Your task to perform on an android device: toggle sleep mode Image 0: 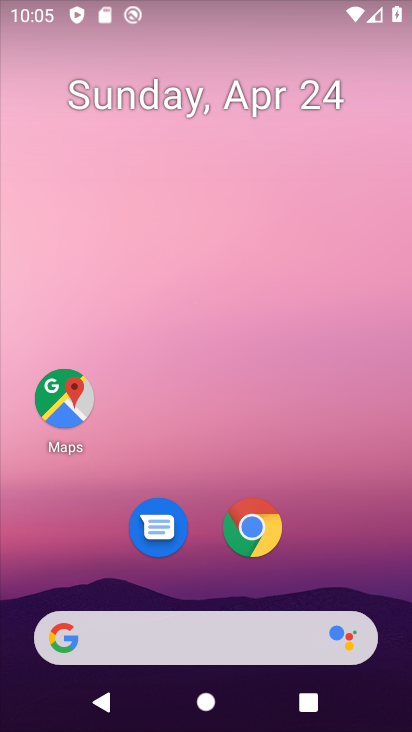
Step 0: drag from (203, 495) to (290, 61)
Your task to perform on an android device: toggle sleep mode Image 1: 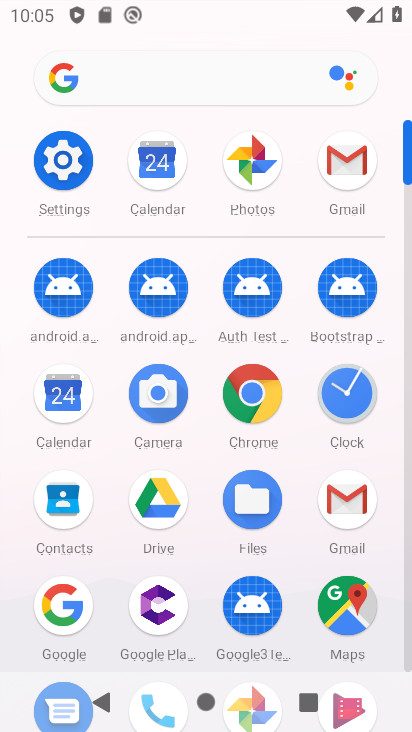
Step 1: click (68, 158)
Your task to perform on an android device: toggle sleep mode Image 2: 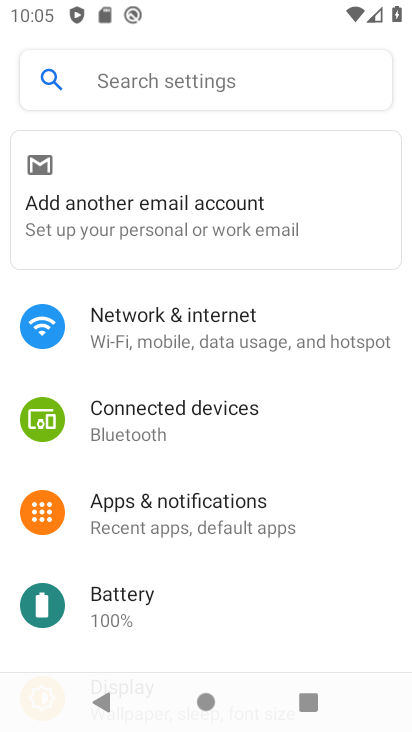
Step 2: click (136, 85)
Your task to perform on an android device: toggle sleep mode Image 3: 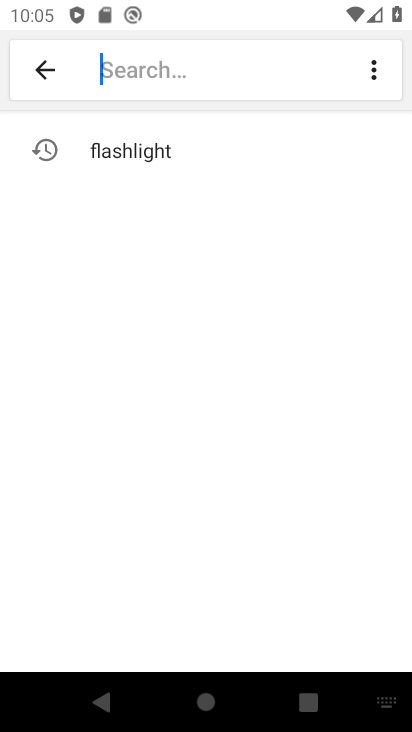
Step 3: type "sleep mode"
Your task to perform on an android device: toggle sleep mode Image 4: 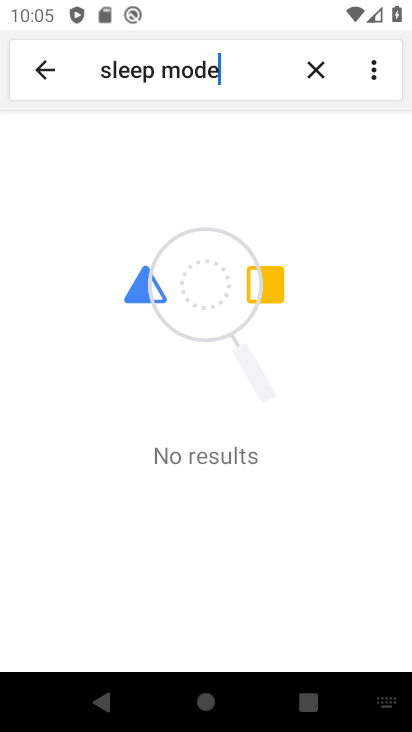
Step 4: task complete